Your task to perform on an android device: all mails in gmail Image 0: 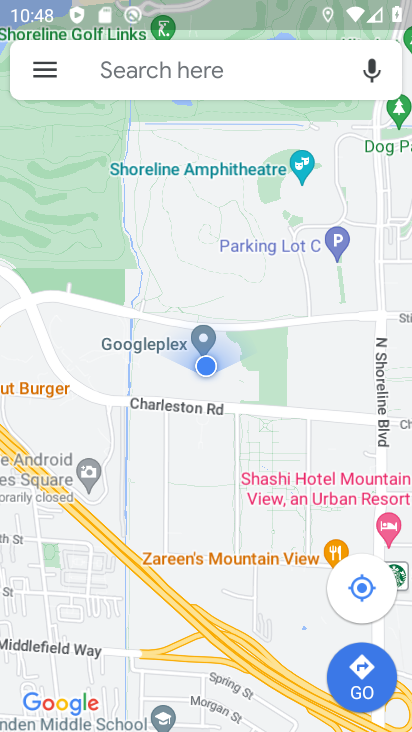
Step 0: press home button
Your task to perform on an android device: all mails in gmail Image 1: 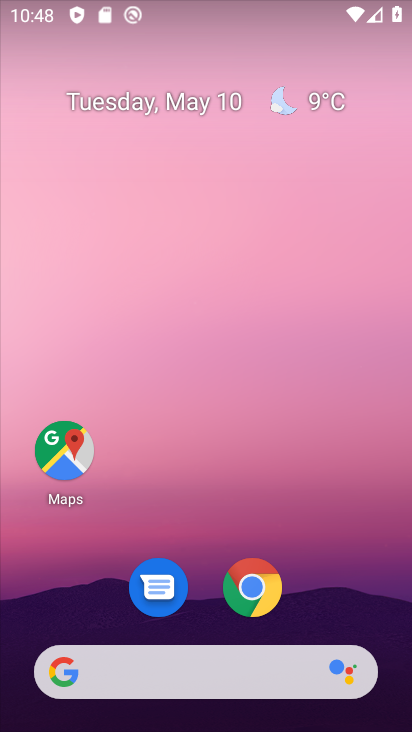
Step 1: drag from (348, 626) to (356, 28)
Your task to perform on an android device: all mails in gmail Image 2: 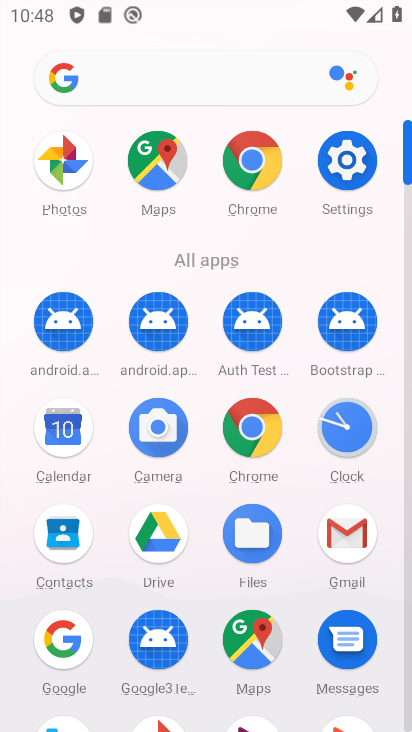
Step 2: click (340, 533)
Your task to perform on an android device: all mails in gmail Image 3: 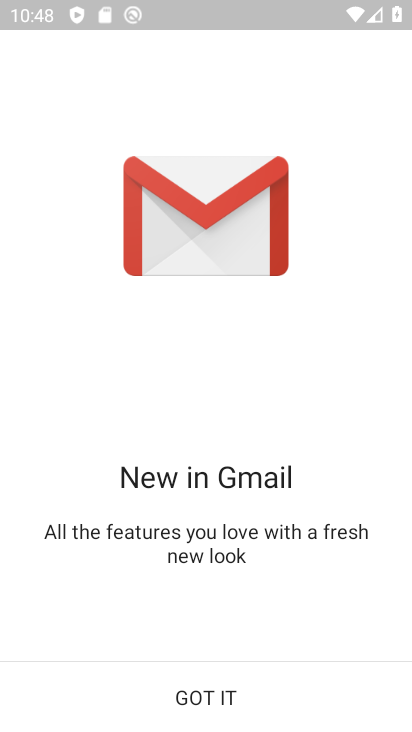
Step 3: click (221, 696)
Your task to perform on an android device: all mails in gmail Image 4: 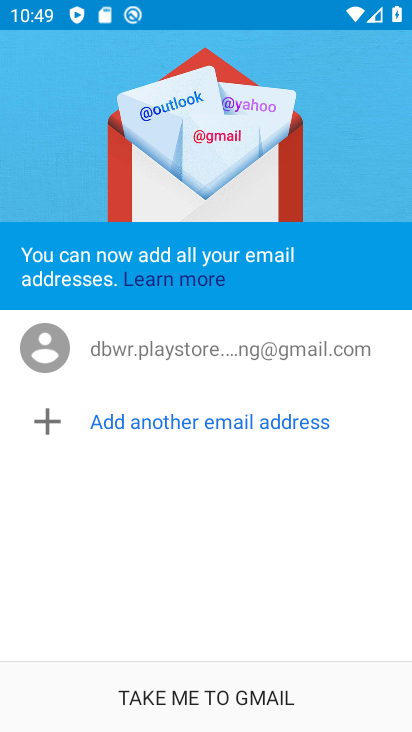
Step 4: click (221, 696)
Your task to perform on an android device: all mails in gmail Image 5: 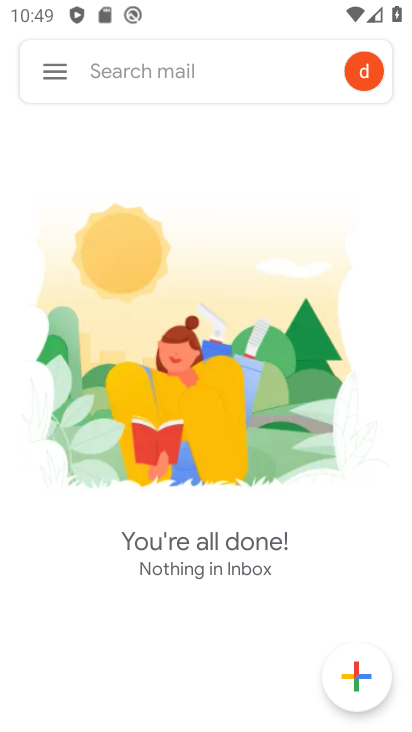
Step 5: click (56, 72)
Your task to perform on an android device: all mails in gmail Image 6: 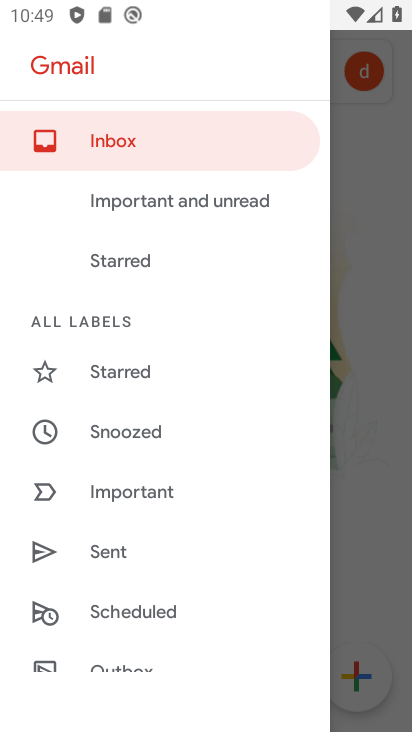
Step 6: drag from (176, 576) to (178, 296)
Your task to perform on an android device: all mails in gmail Image 7: 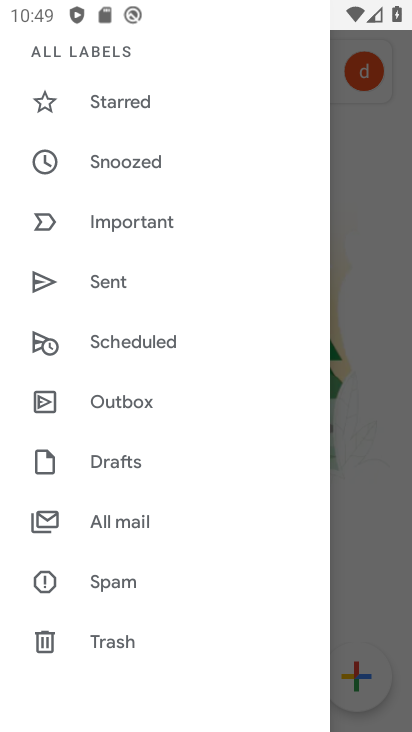
Step 7: click (91, 521)
Your task to perform on an android device: all mails in gmail Image 8: 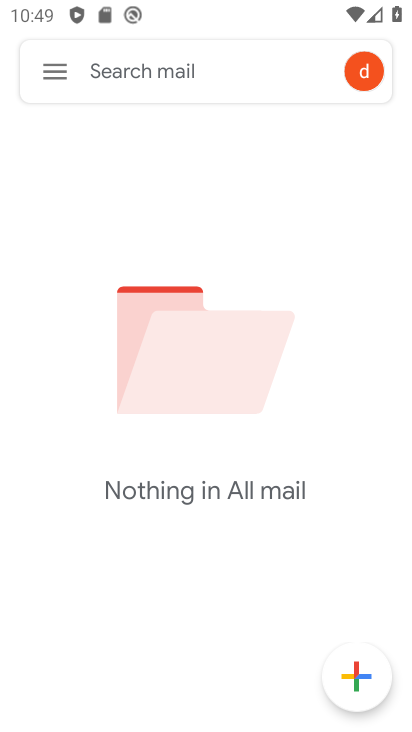
Step 8: task complete